Your task to perform on an android device: find snoozed emails in the gmail app Image 0: 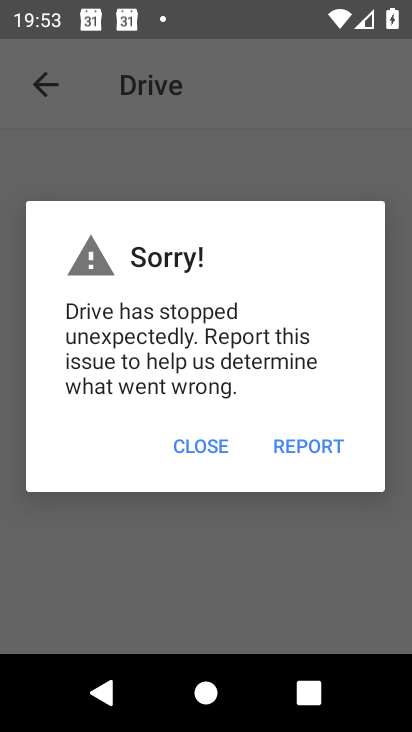
Step 0: press home button
Your task to perform on an android device: find snoozed emails in the gmail app Image 1: 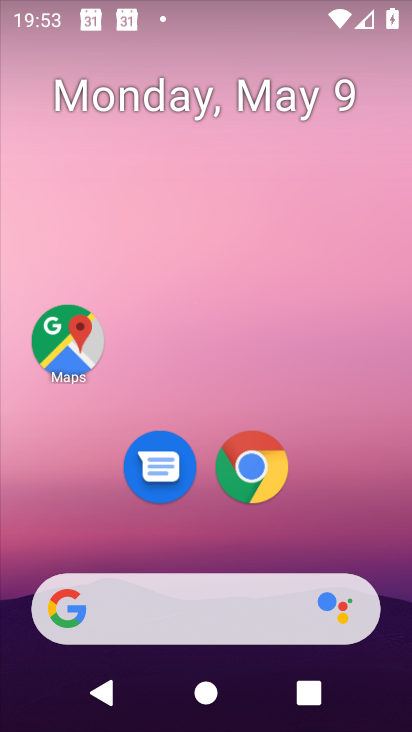
Step 1: drag from (377, 529) to (322, 167)
Your task to perform on an android device: find snoozed emails in the gmail app Image 2: 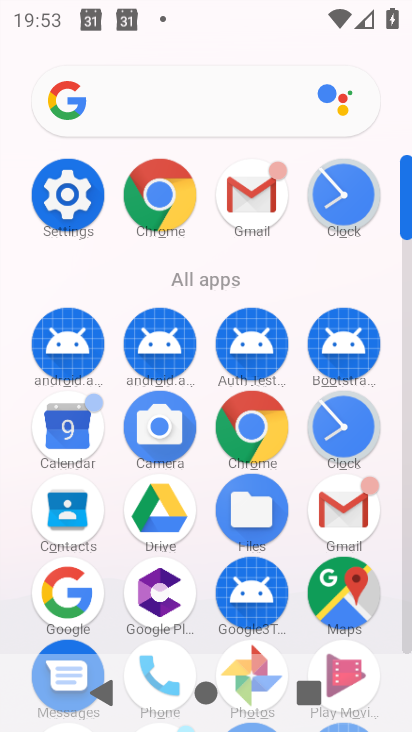
Step 2: click (253, 200)
Your task to perform on an android device: find snoozed emails in the gmail app Image 3: 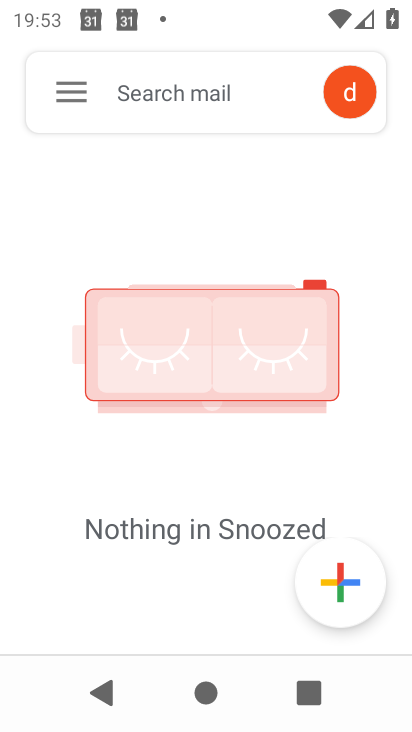
Step 3: click (73, 90)
Your task to perform on an android device: find snoozed emails in the gmail app Image 4: 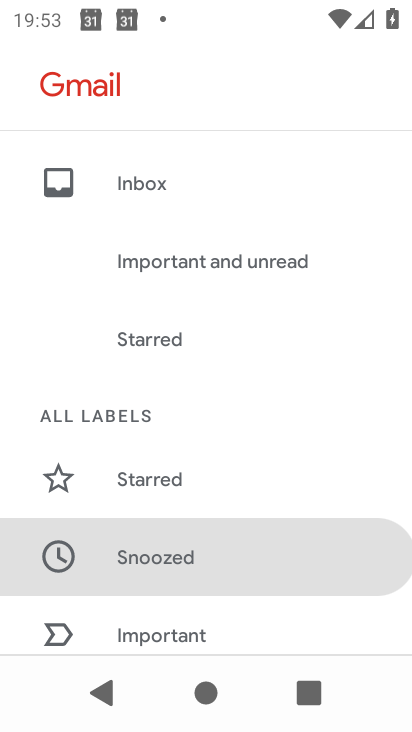
Step 4: click (139, 576)
Your task to perform on an android device: find snoozed emails in the gmail app Image 5: 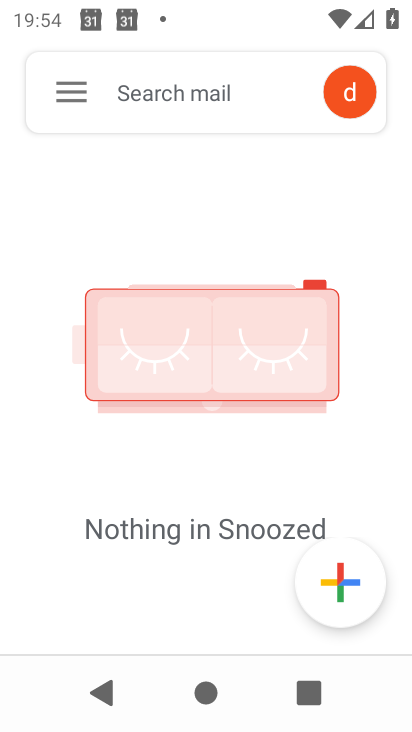
Step 5: task complete